Your task to perform on an android device: Open internet settings Image 0: 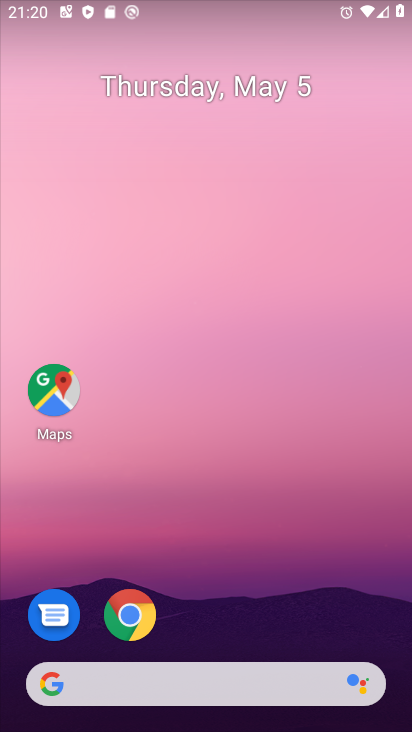
Step 0: drag from (246, 619) to (301, 10)
Your task to perform on an android device: Open internet settings Image 1: 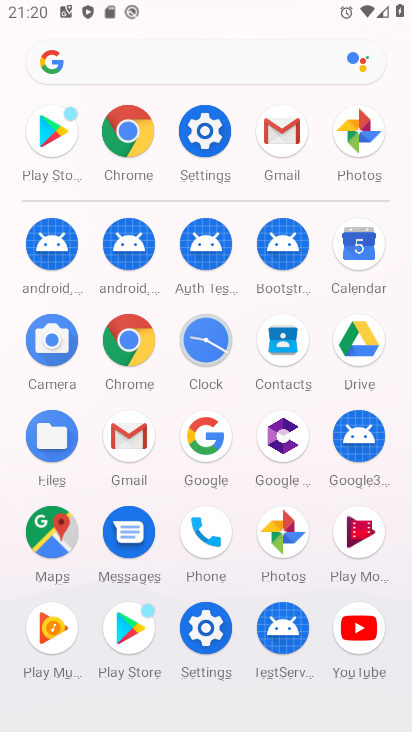
Step 1: click (207, 157)
Your task to perform on an android device: Open internet settings Image 2: 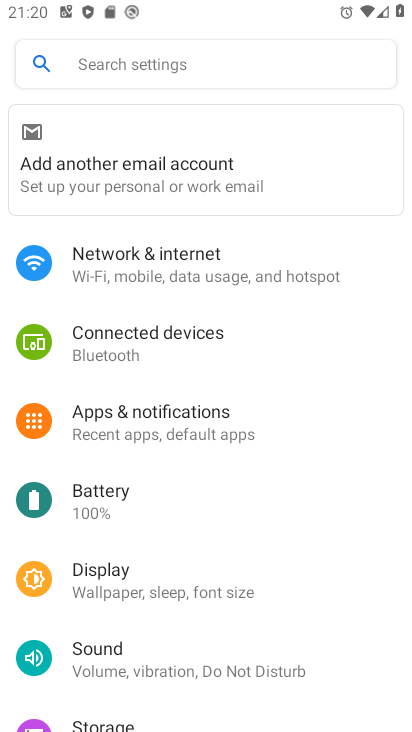
Step 2: click (178, 271)
Your task to perform on an android device: Open internet settings Image 3: 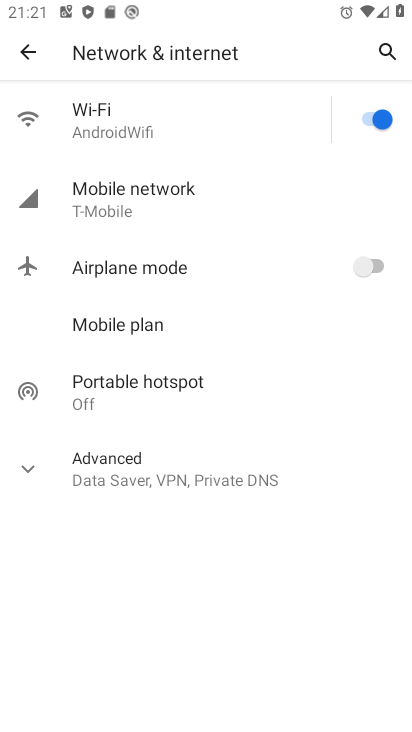
Step 3: task complete